Your task to perform on an android device: turn notification dots off Image 0: 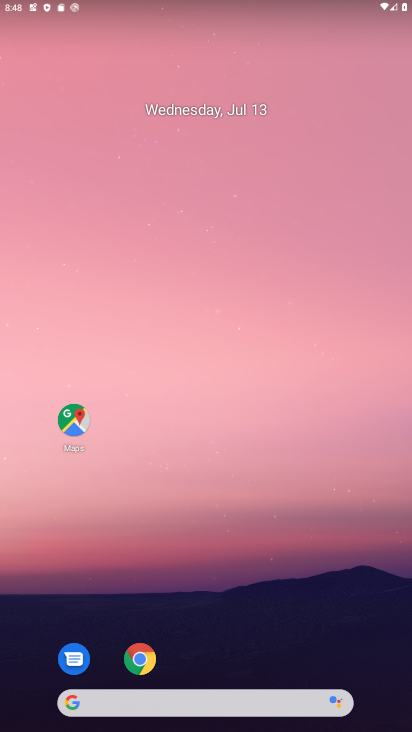
Step 0: drag from (230, 658) to (222, 156)
Your task to perform on an android device: turn notification dots off Image 1: 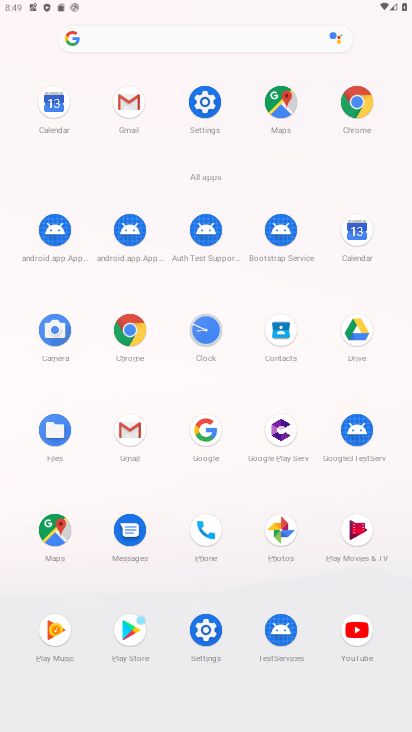
Step 1: click (205, 97)
Your task to perform on an android device: turn notification dots off Image 2: 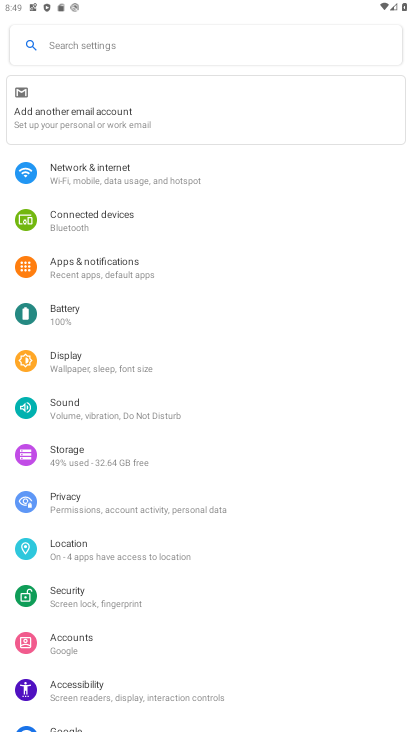
Step 2: click (96, 262)
Your task to perform on an android device: turn notification dots off Image 3: 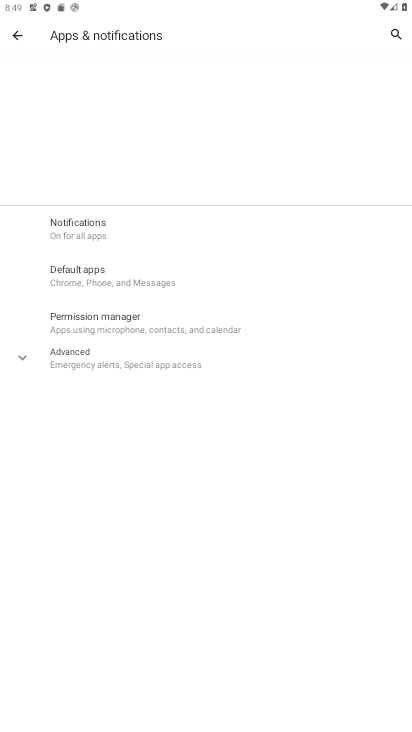
Step 3: click (93, 232)
Your task to perform on an android device: turn notification dots off Image 4: 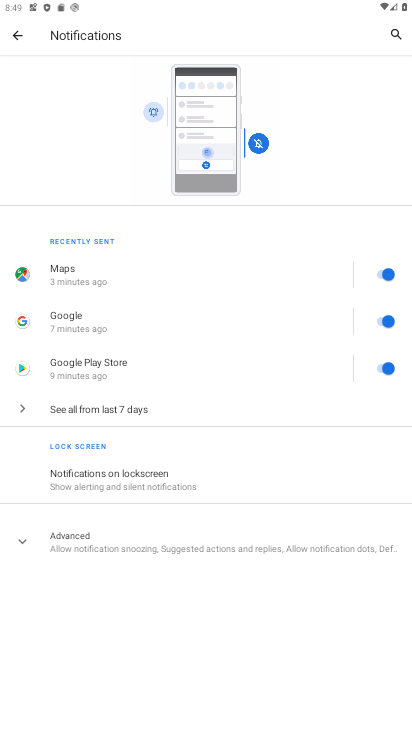
Step 4: click (92, 541)
Your task to perform on an android device: turn notification dots off Image 5: 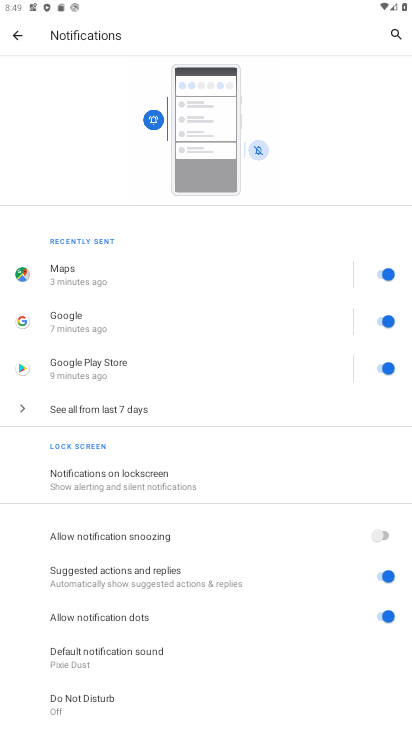
Step 5: click (373, 619)
Your task to perform on an android device: turn notification dots off Image 6: 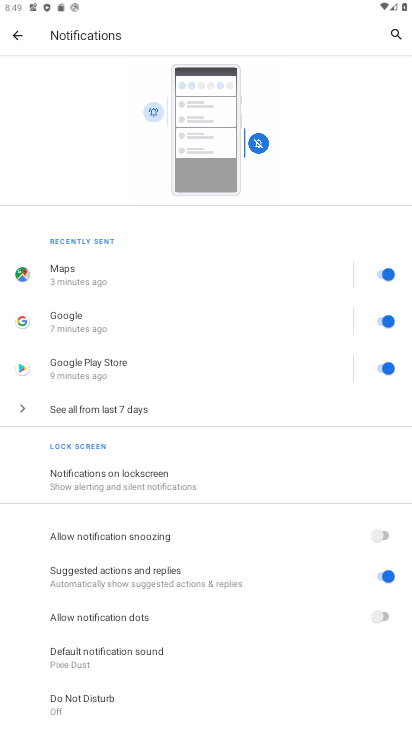
Step 6: task complete